Your task to perform on an android device: Open settings Image 0: 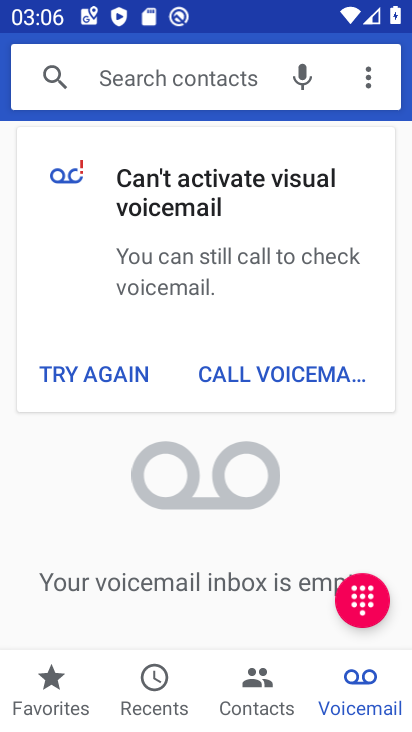
Step 0: press back button
Your task to perform on an android device: Open settings Image 1: 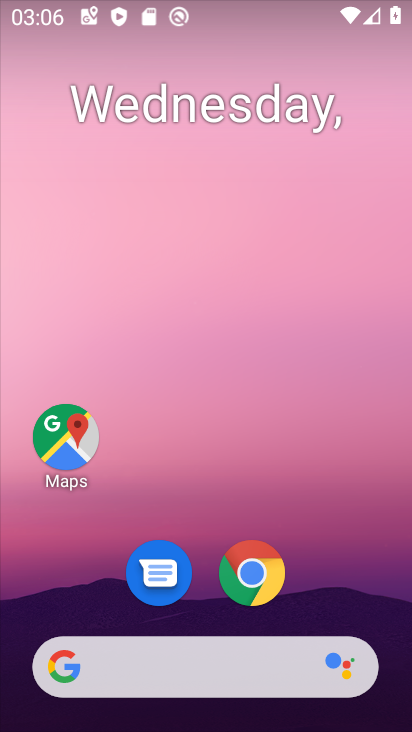
Step 1: drag from (316, 599) to (293, 44)
Your task to perform on an android device: Open settings Image 2: 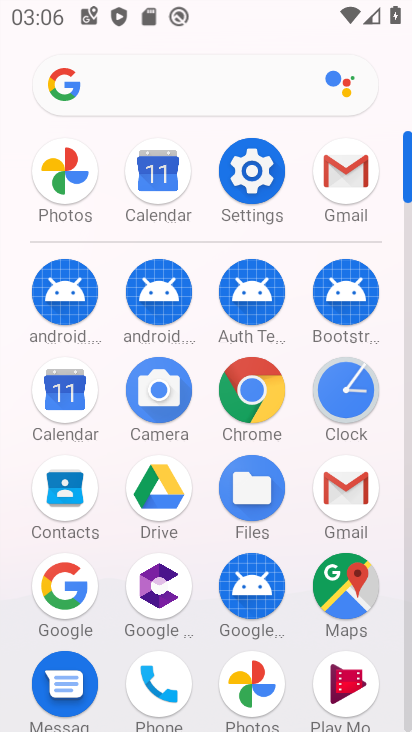
Step 2: click (255, 168)
Your task to perform on an android device: Open settings Image 3: 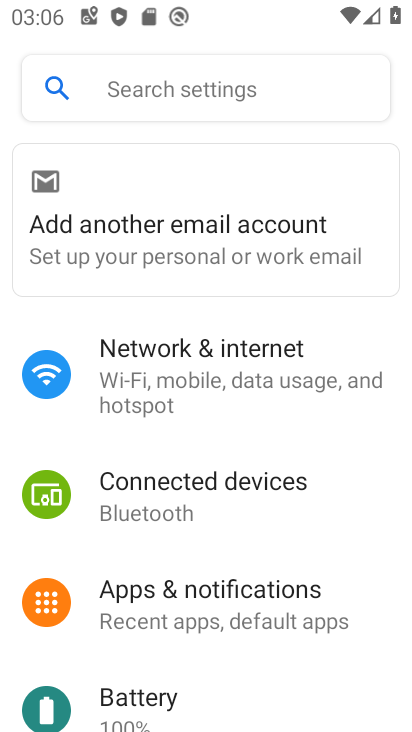
Step 3: task complete